Your task to perform on an android device: install app "Facebook" Image 0: 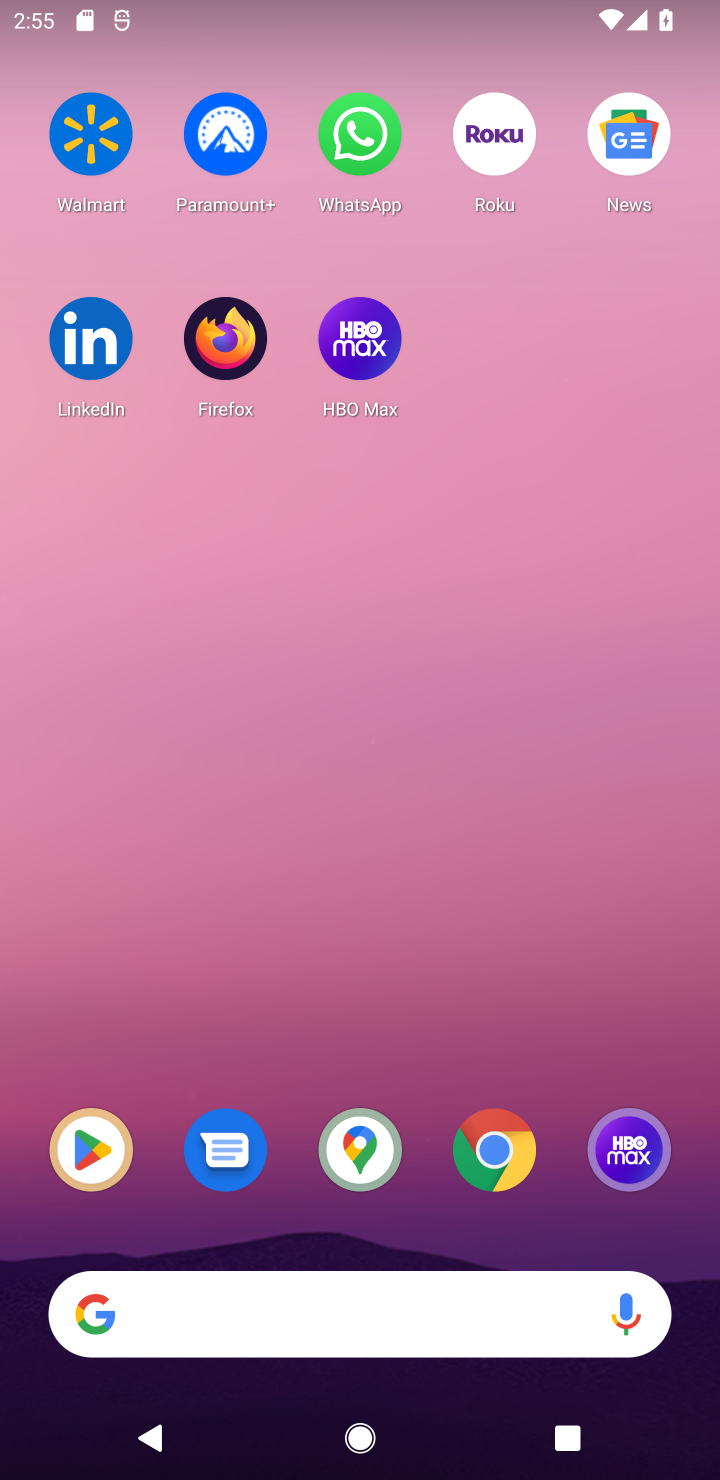
Step 0: press home button
Your task to perform on an android device: install app "Facebook" Image 1: 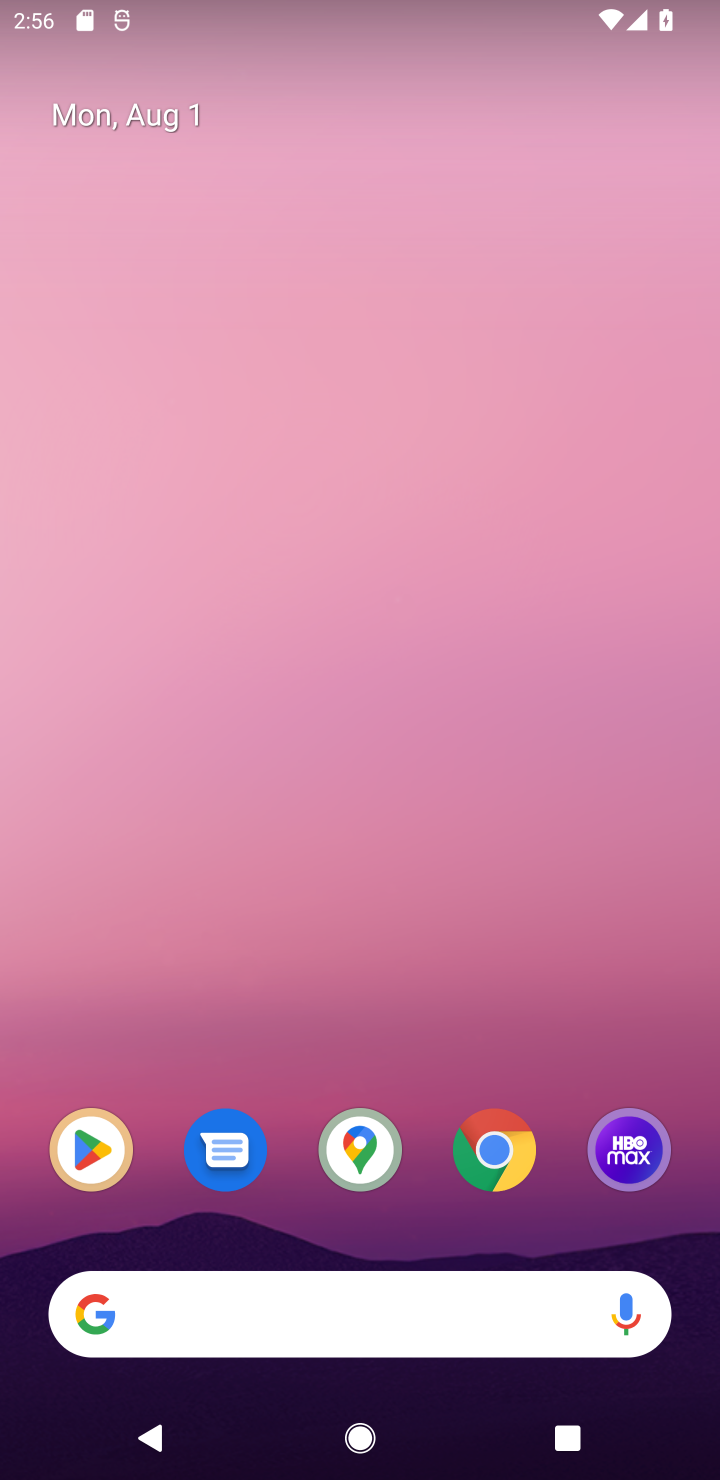
Step 1: drag from (419, 1237) to (393, 74)
Your task to perform on an android device: install app "Facebook" Image 2: 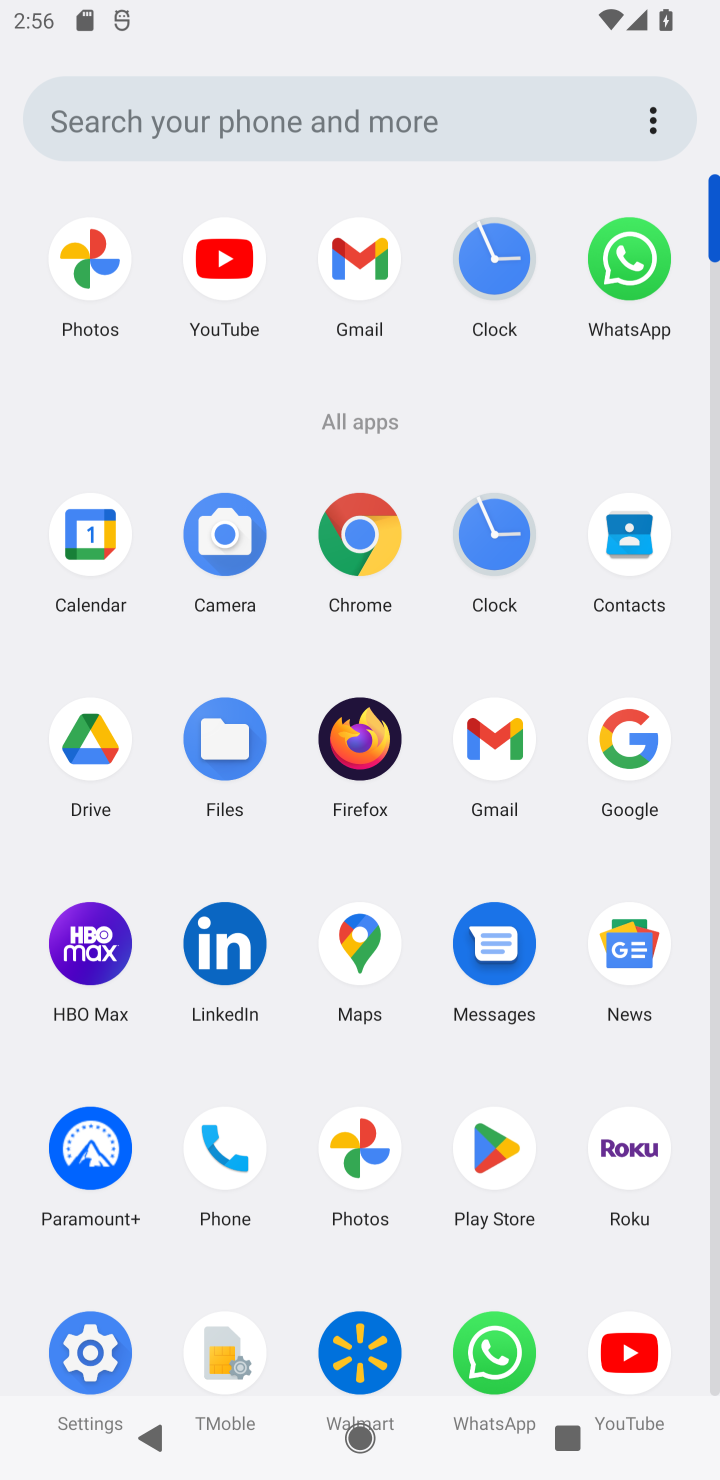
Step 2: drag from (297, 849) to (355, 19)
Your task to perform on an android device: install app "Facebook" Image 3: 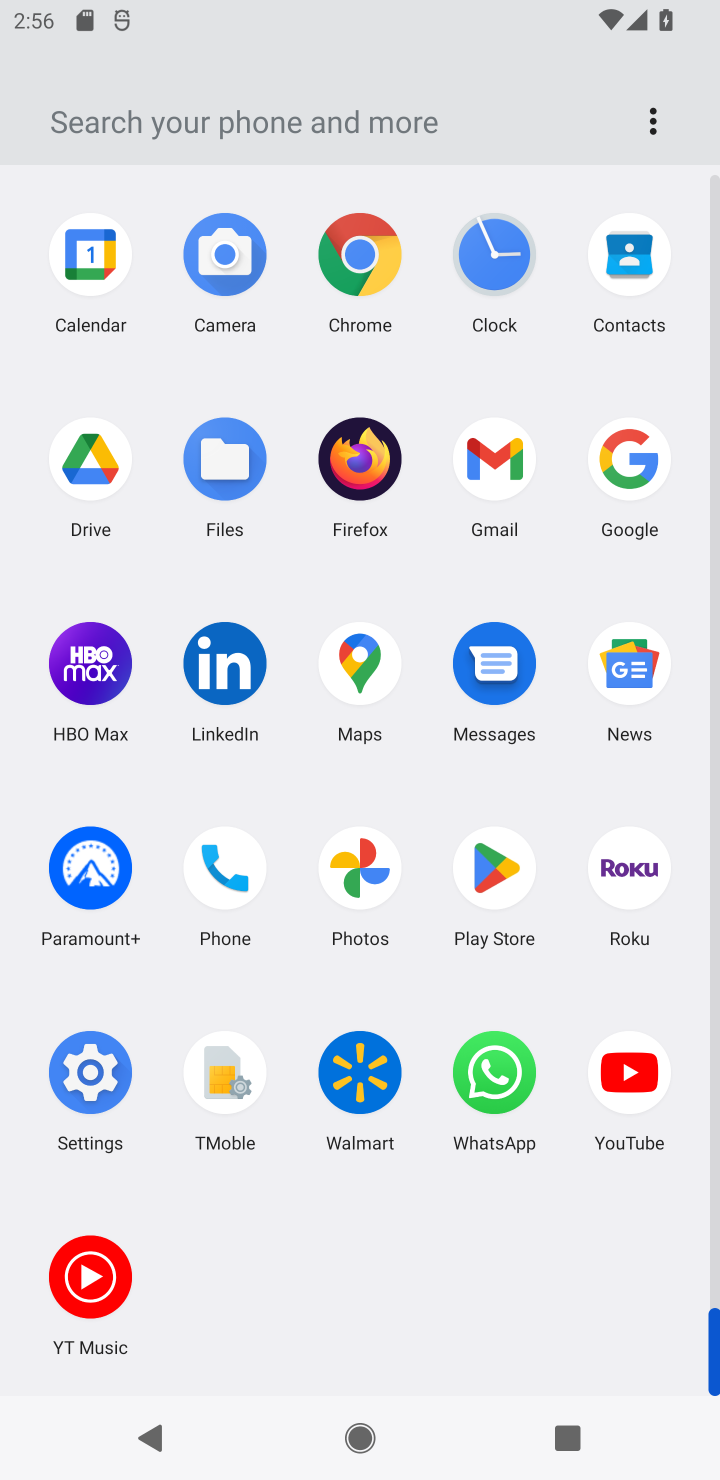
Step 3: drag from (716, 1336) to (716, 943)
Your task to perform on an android device: install app "Facebook" Image 4: 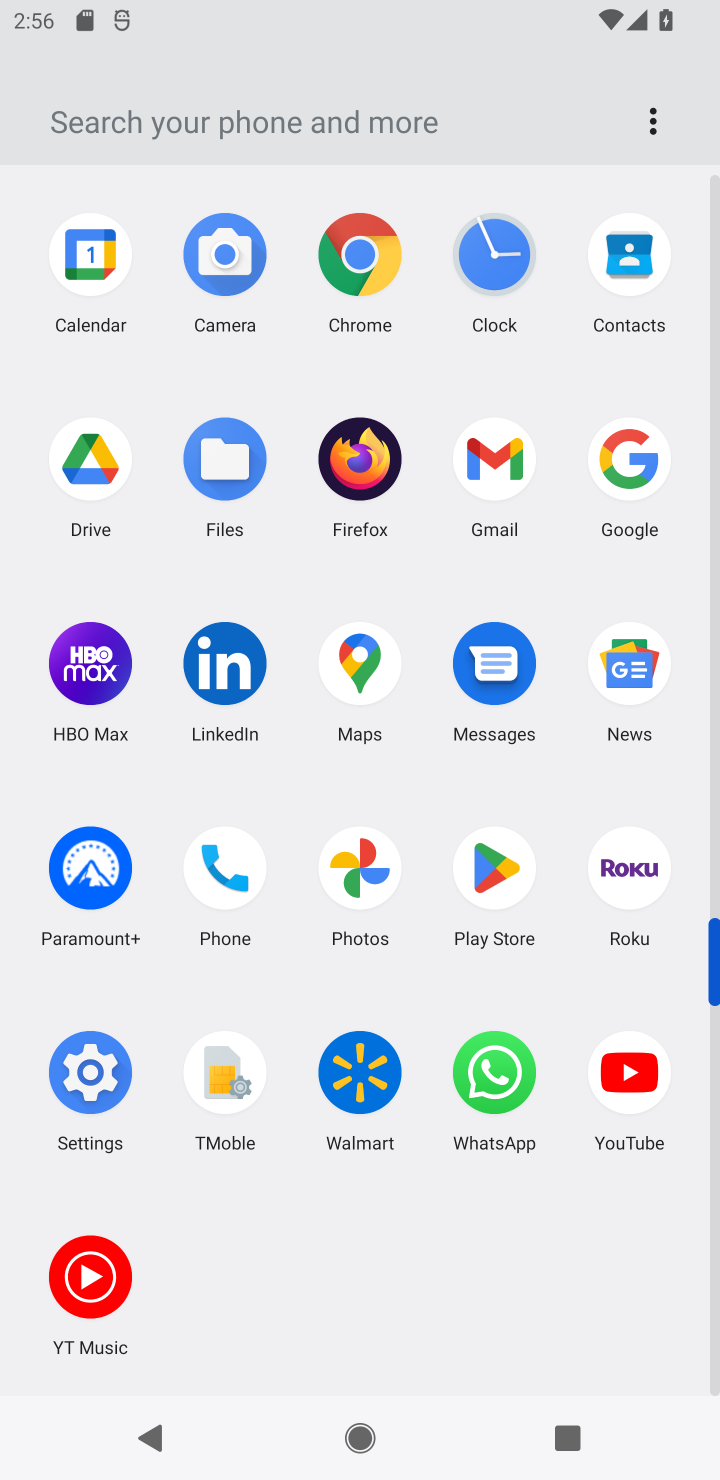
Step 4: click (502, 892)
Your task to perform on an android device: install app "Facebook" Image 5: 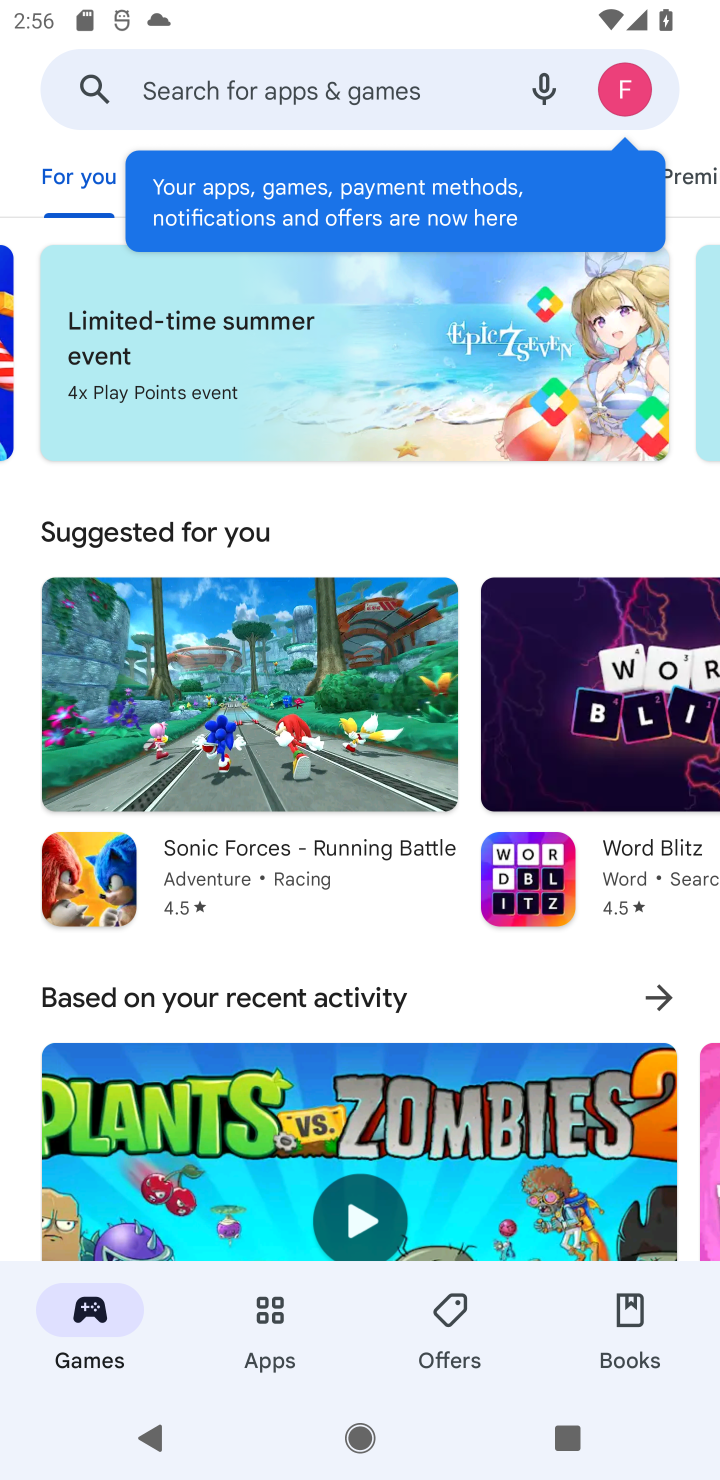
Step 5: click (365, 93)
Your task to perform on an android device: install app "Facebook" Image 6: 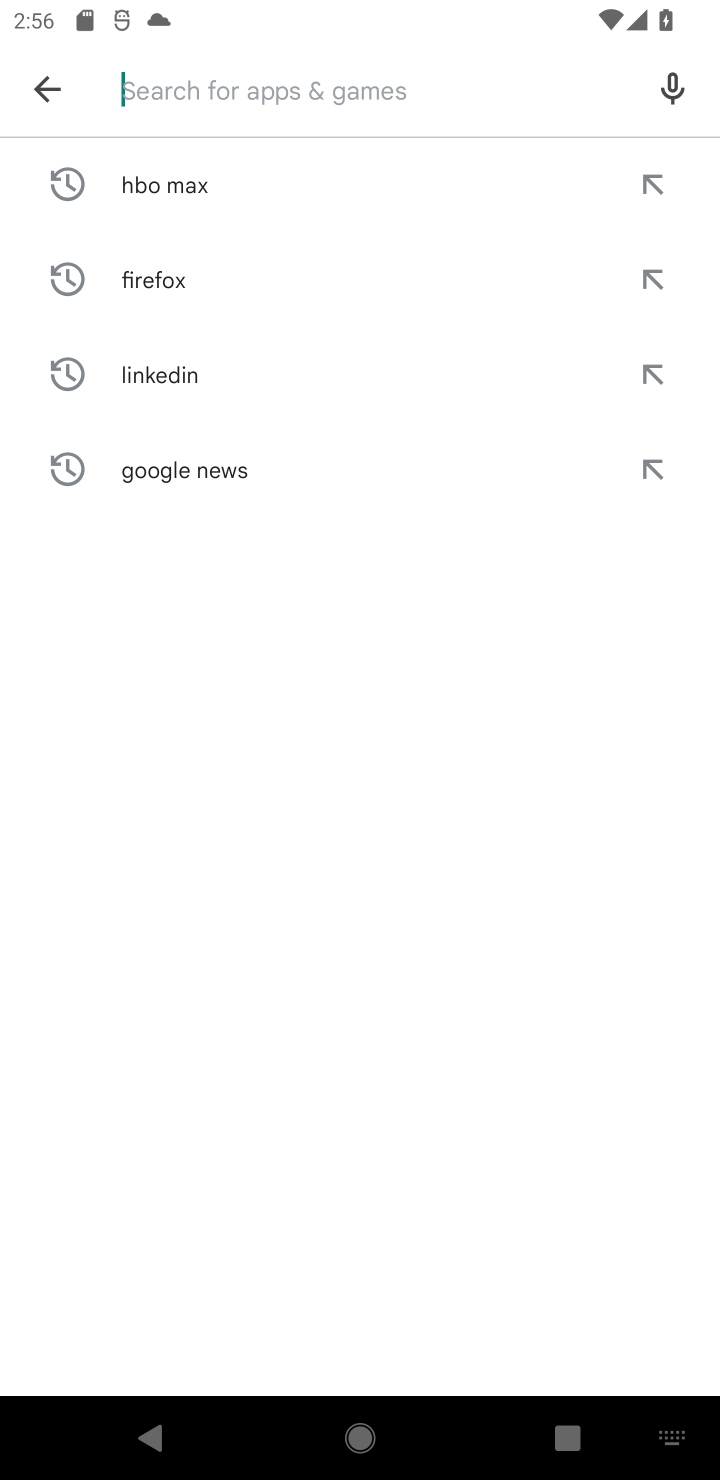
Step 6: type "faacebook"
Your task to perform on an android device: install app "Facebook" Image 7: 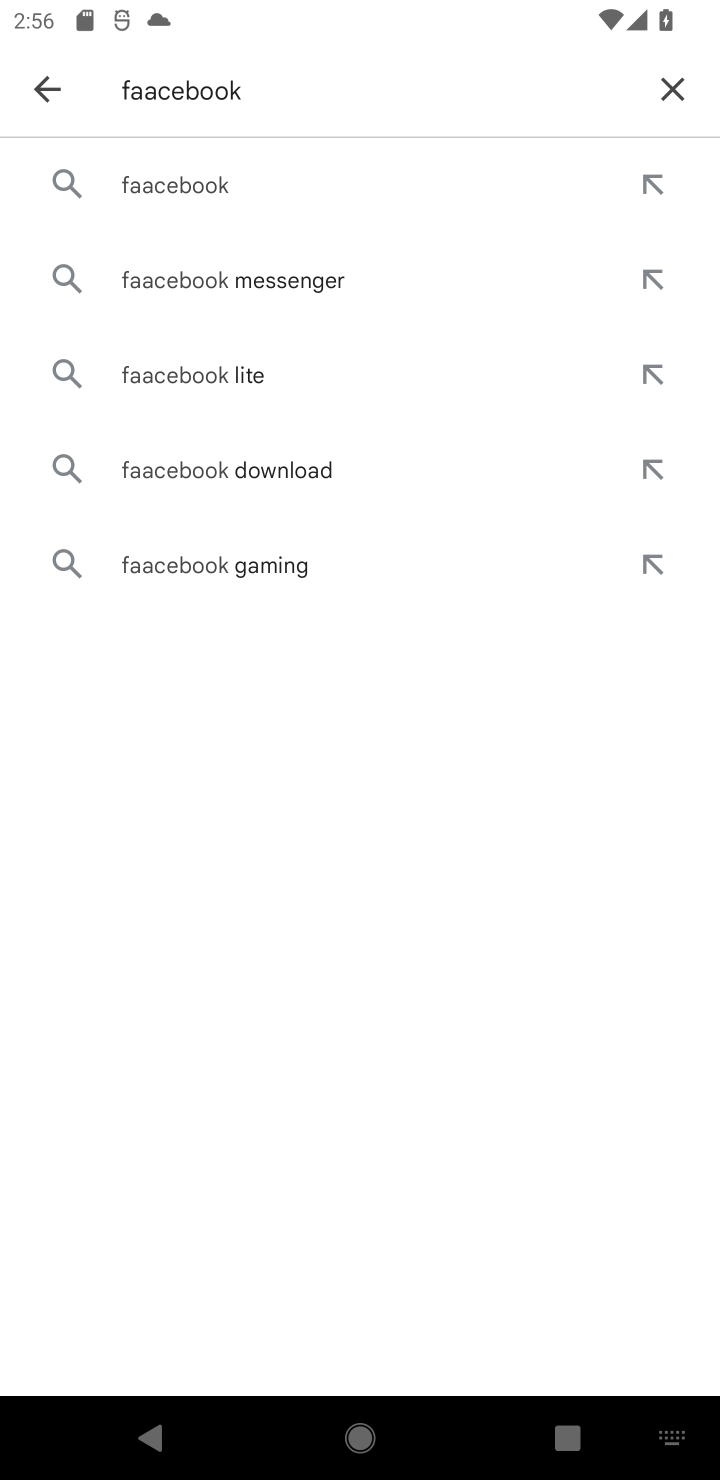
Step 7: click (268, 196)
Your task to perform on an android device: install app "Facebook" Image 8: 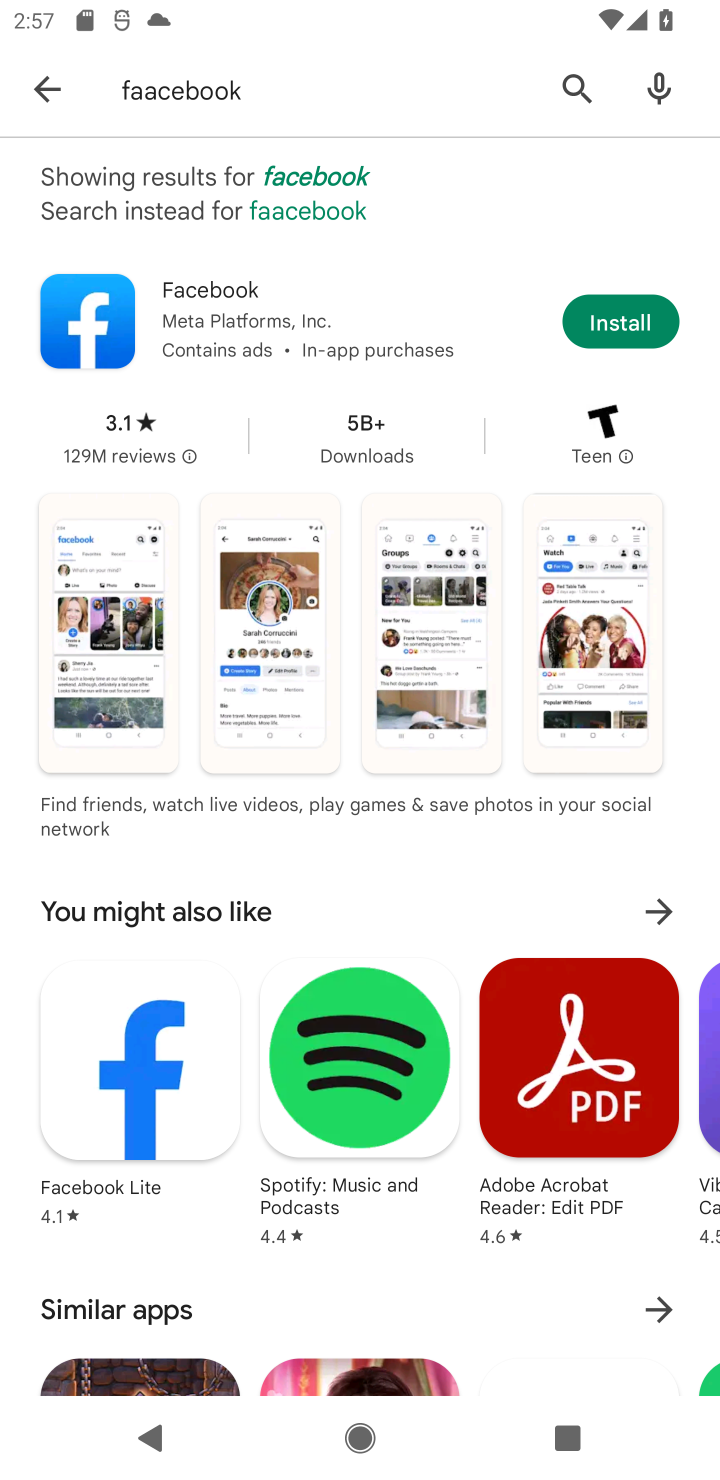
Step 8: click (607, 305)
Your task to perform on an android device: install app "Facebook" Image 9: 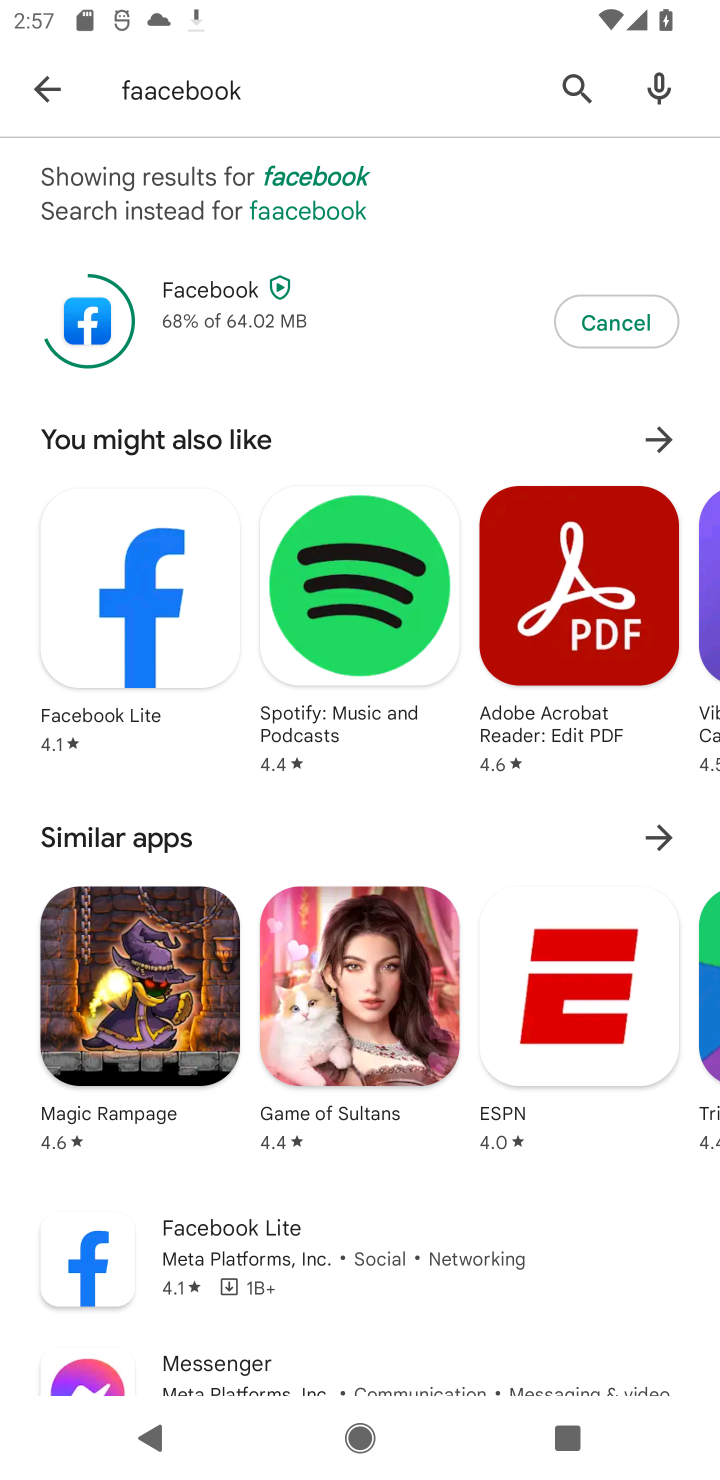
Step 9: task complete